Your task to perform on an android device: open the mobile data screen to see how much data has been used Image 0: 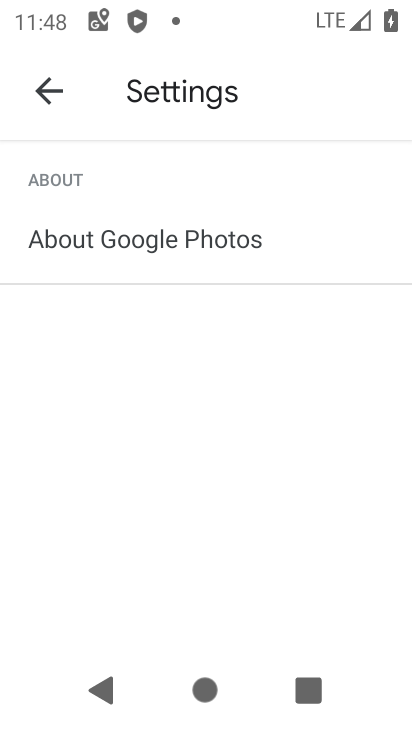
Step 0: press home button
Your task to perform on an android device: open the mobile data screen to see how much data has been used Image 1: 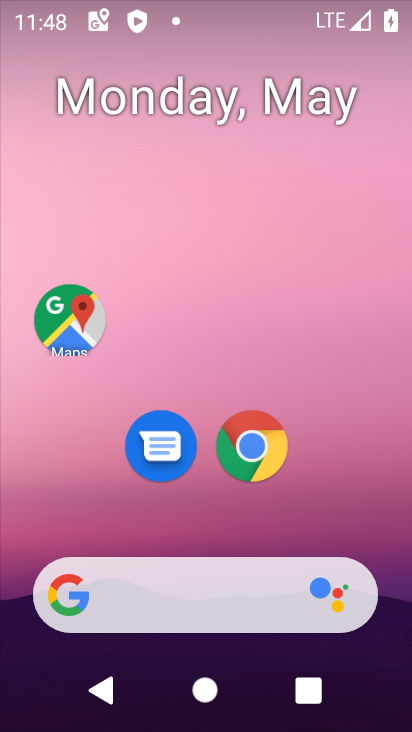
Step 1: drag from (357, 515) to (219, 1)
Your task to perform on an android device: open the mobile data screen to see how much data has been used Image 2: 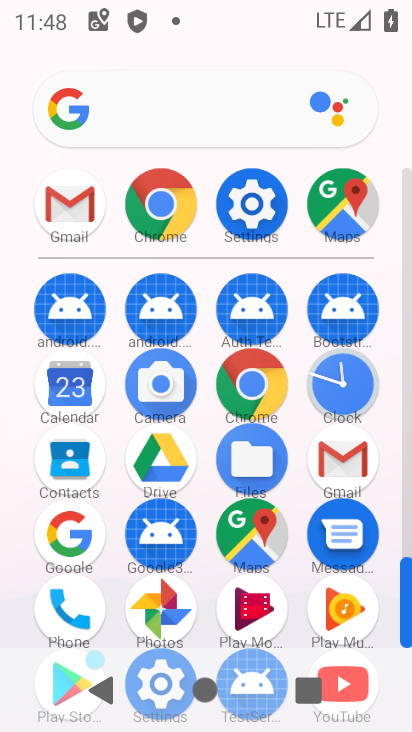
Step 2: click (247, 212)
Your task to perform on an android device: open the mobile data screen to see how much data has been used Image 3: 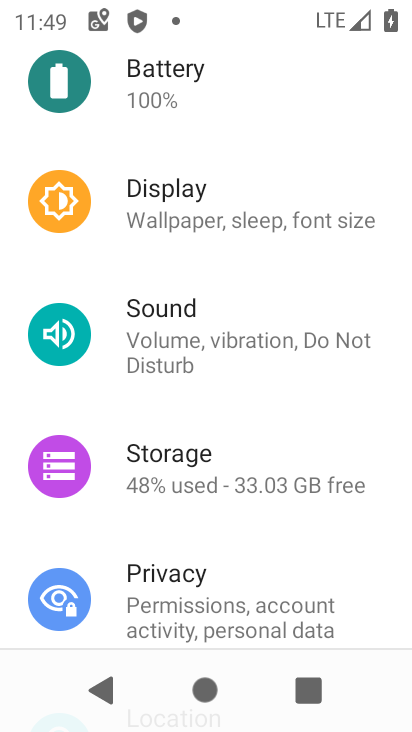
Step 3: drag from (201, 265) to (161, 679)
Your task to perform on an android device: open the mobile data screen to see how much data has been used Image 4: 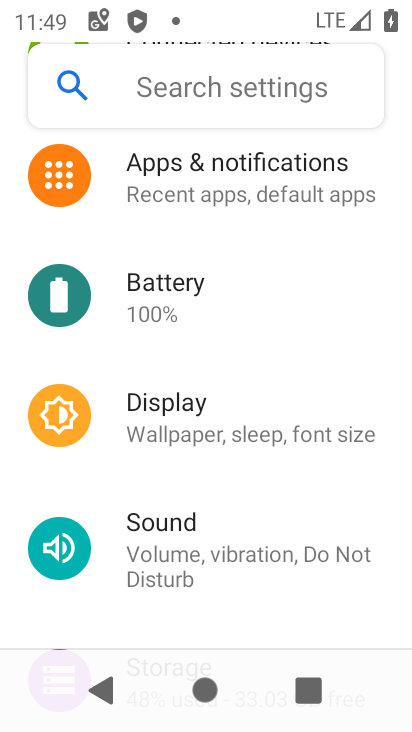
Step 4: drag from (238, 182) to (241, 651)
Your task to perform on an android device: open the mobile data screen to see how much data has been used Image 5: 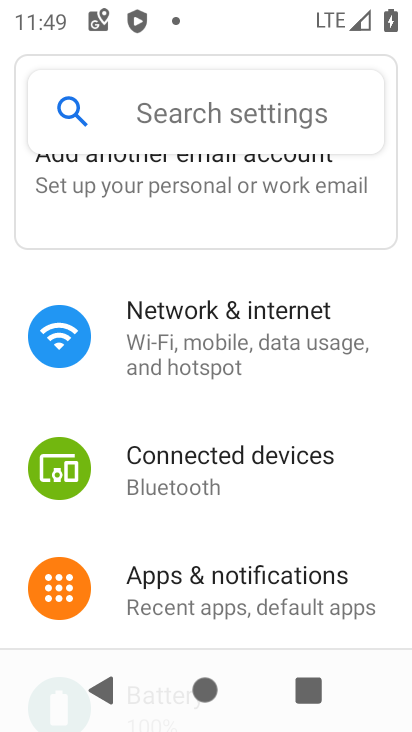
Step 5: click (244, 342)
Your task to perform on an android device: open the mobile data screen to see how much data has been used Image 6: 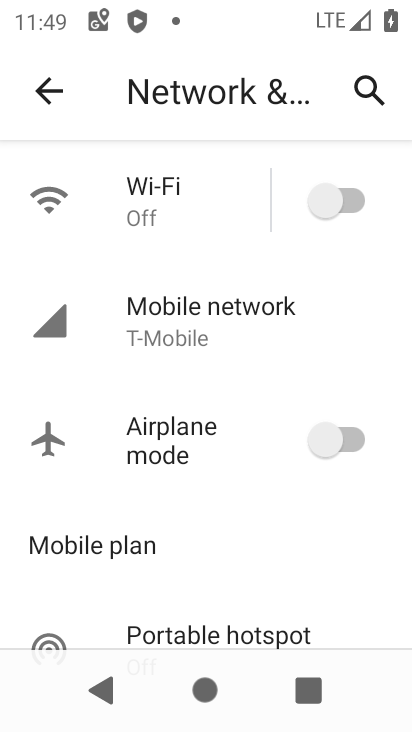
Step 6: click (208, 327)
Your task to perform on an android device: open the mobile data screen to see how much data has been used Image 7: 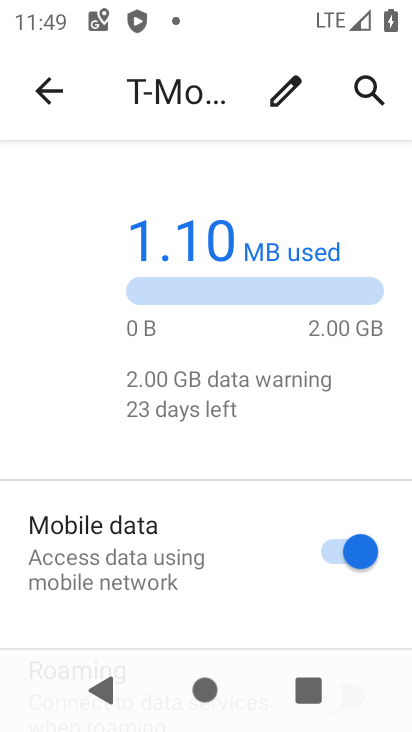
Step 7: task complete